Your task to perform on an android device: What's the weather going to be this weekend? Image 0: 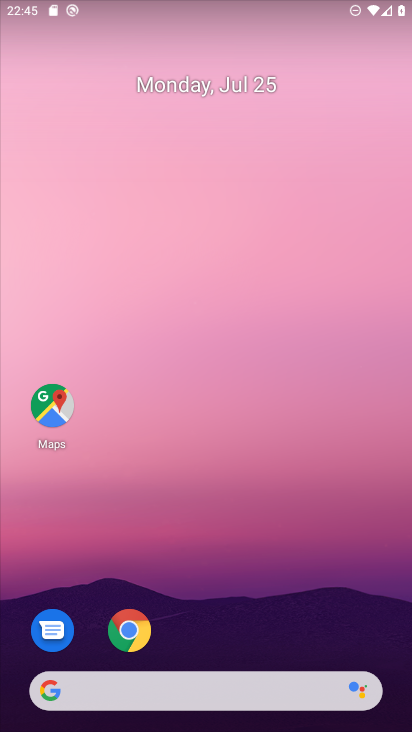
Step 0: drag from (322, 600) to (292, 47)
Your task to perform on an android device: What's the weather going to be this weekend? Image 1: 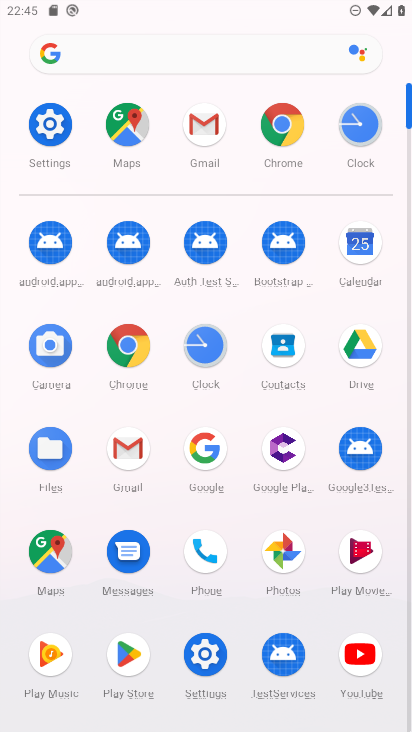
Step 1: click (131, 342)
Your task to perform on an android device: What's the weather going to be this weekend? Image 2: 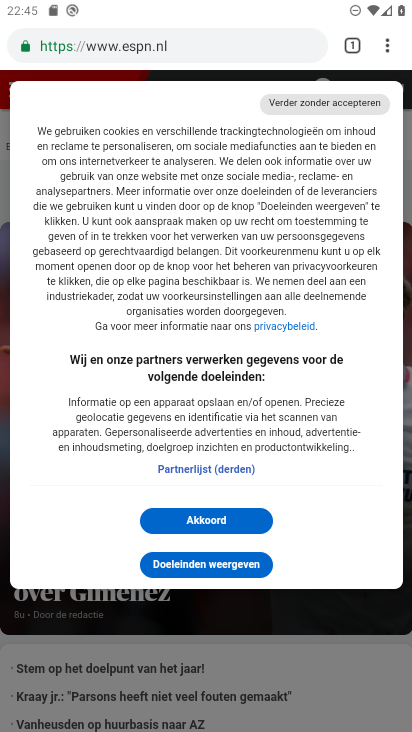
Step 2: click (280, 44)
Your task to perform on an android device: What's the weather going to be this weekend? Image 3: 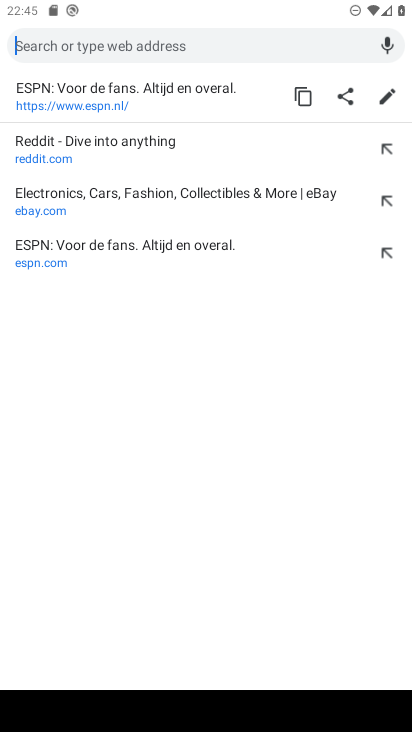
Step 3: type "weather"
Your task to perform on an android device: What's the weather going to be this weekend? Image 4: 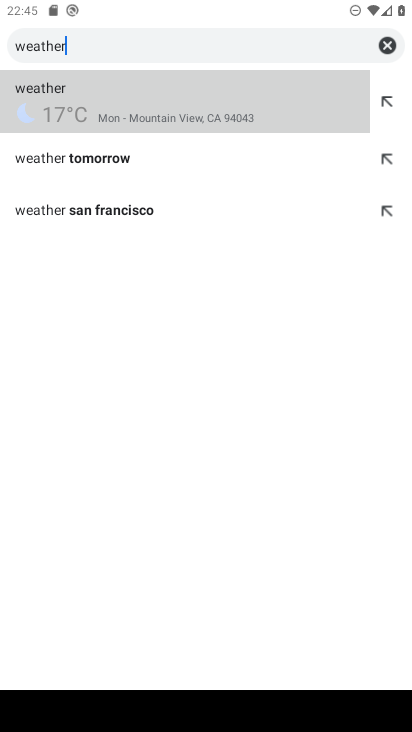
Step 4: click (146, 95)
Your task to perform on an android device: What's the weather going to be this weekend? Image 5: 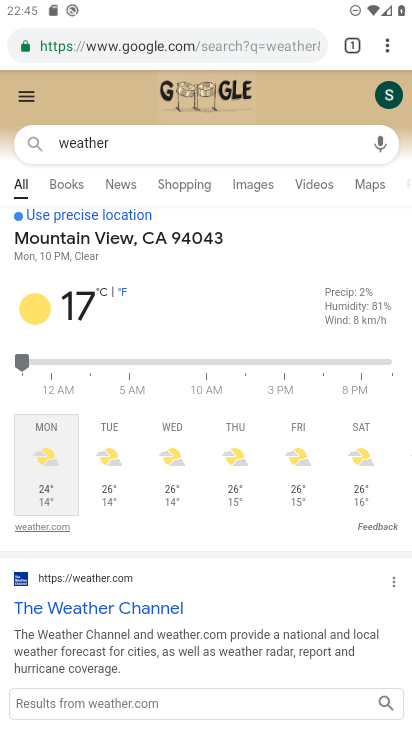
Step 5: click (360, 457)
Your task to perform on an android device: What's the weather going to be this weekend? Image 6: 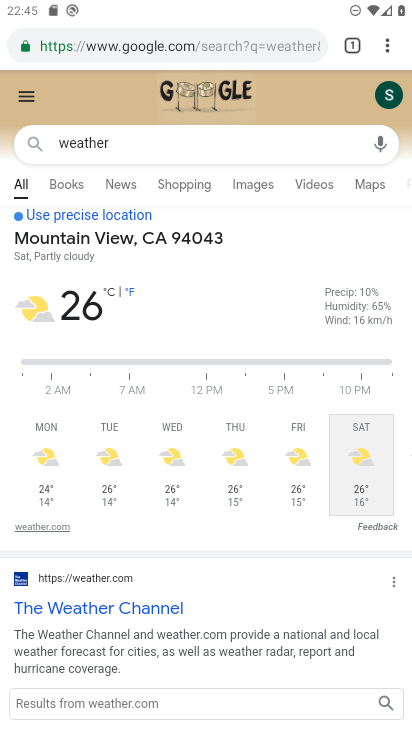
Step 6: task complete